Your task to perform on an android device: delete a single message in the gmail app Image 0: 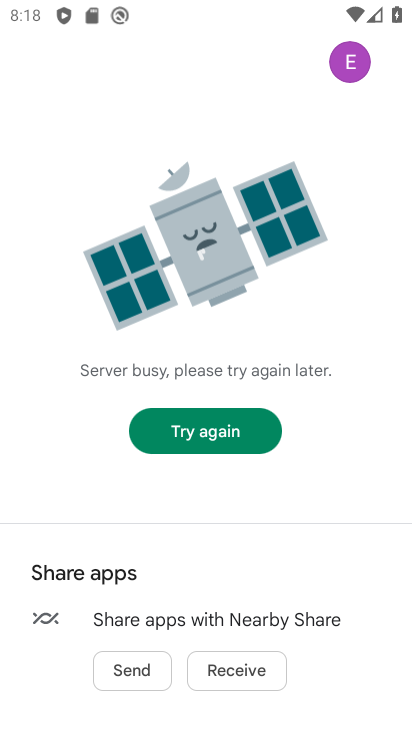
Step 0: press home button
Your task to perform on an android device: delete a single message in the gmail app Image 1: 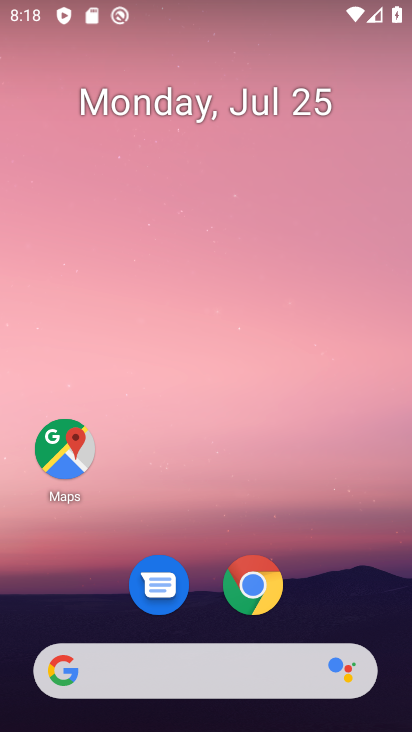
Step 1: drag from (187, 620) to (307, 35)
Your task to perform on an android device: delete a single message in the gmail app Image 2: 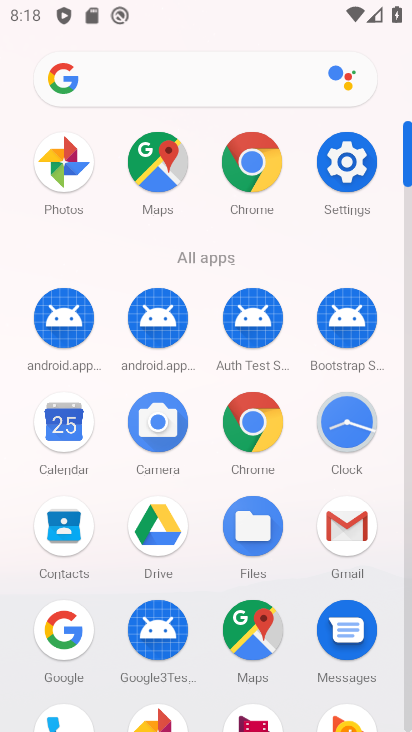
Step 2: click (350, 530)
Your task to perform on an android device: delete a single message in the gmail app Image 3: 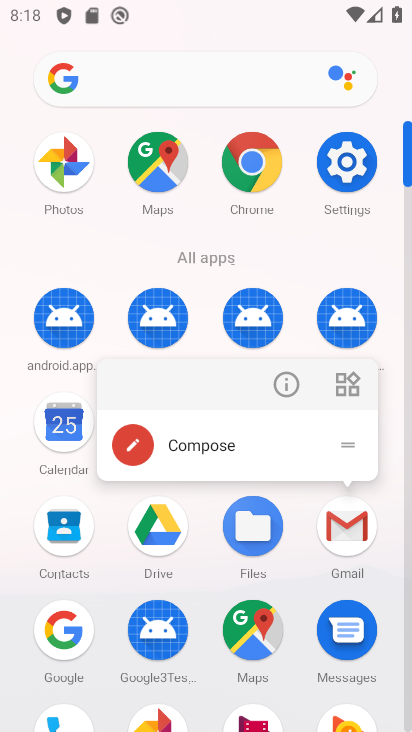
Step 3: click (353, 528)
Your task to perform on an android device: delete a single message in the gmail app Image 4: 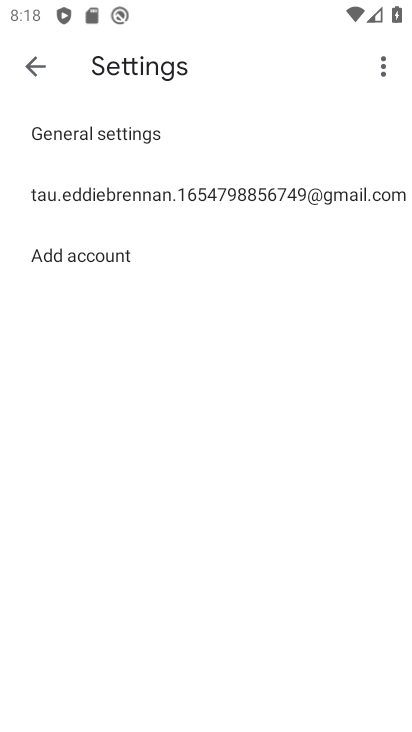
Step 4: click (37, 68)
Your task to perform on an android device: delete a single message in the gmail app Image 5: 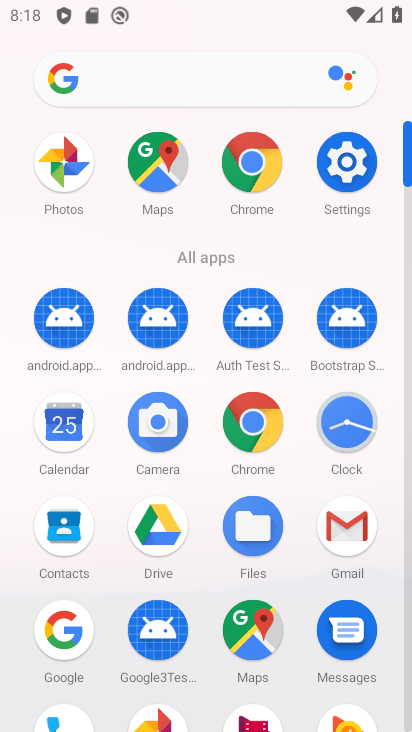
Step 5: click (353, 516)
Your task to perform on an android device: delete a single message in the gmail app Image 6: 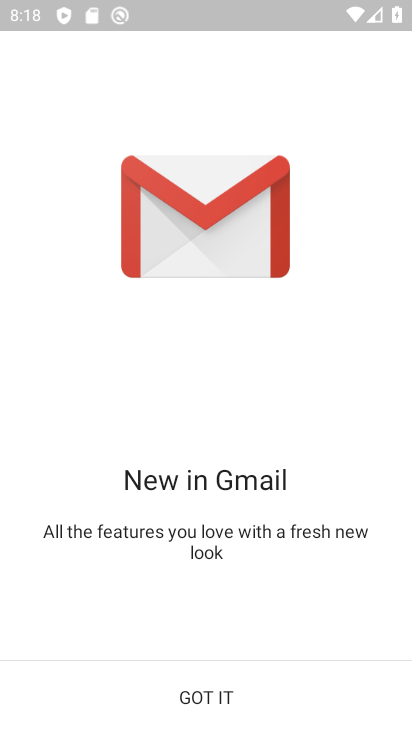
Step 6: click (186, 694)
Your task to perform on an android device: delete a single message in the gmail app Image 7: 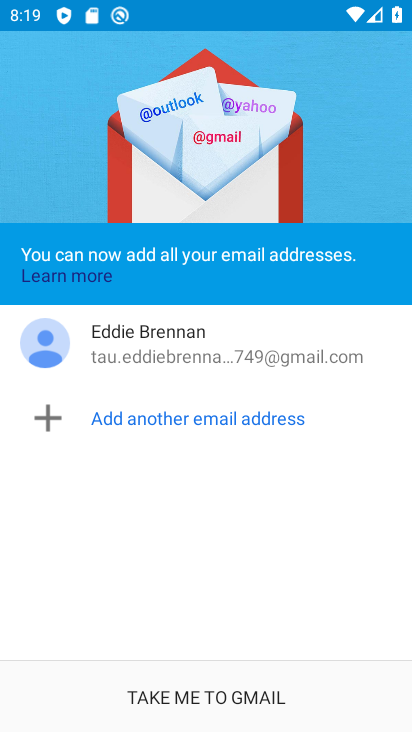
Step 7: click (184, 695)
Your task to perform on an android device: delete a single message in the gmail app Image 8: 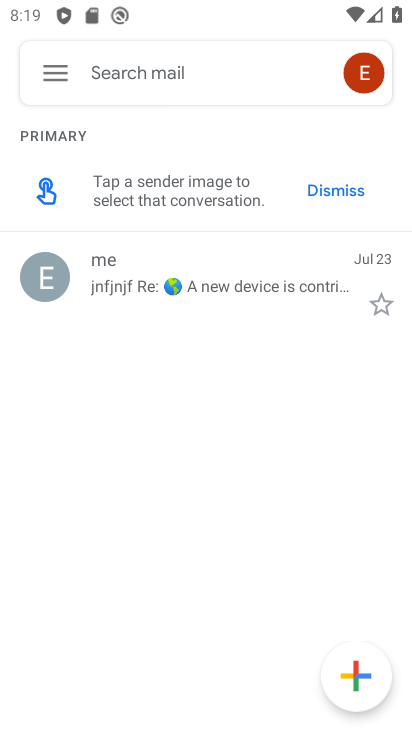
Step 8: click (50, 277)
Your task to perform on an android device: delete a single message in the gmail app Image 9: 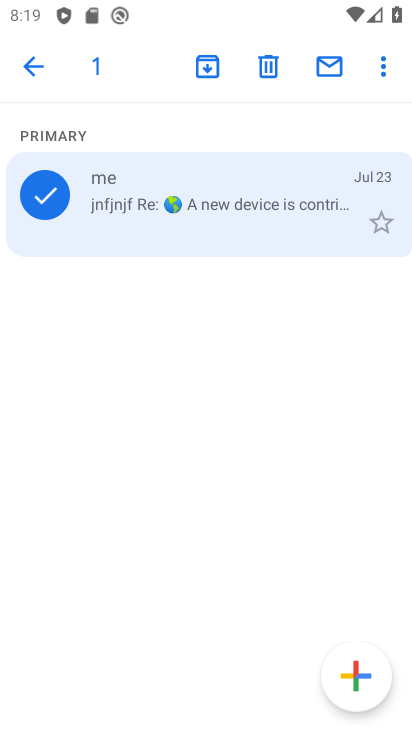
Step 9: click (265, 62)
Your task to perform on an android device: delete a single message in the gmail app Image 10: 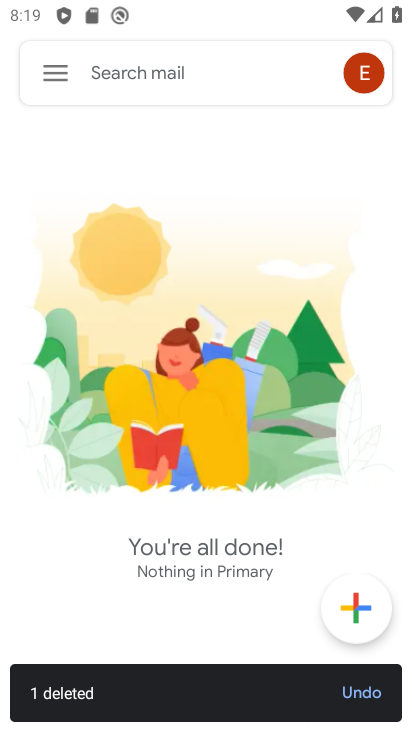
Step 10: task complete